Your task to perform on an android device: What's on my calendar tomorrow? Image 0: 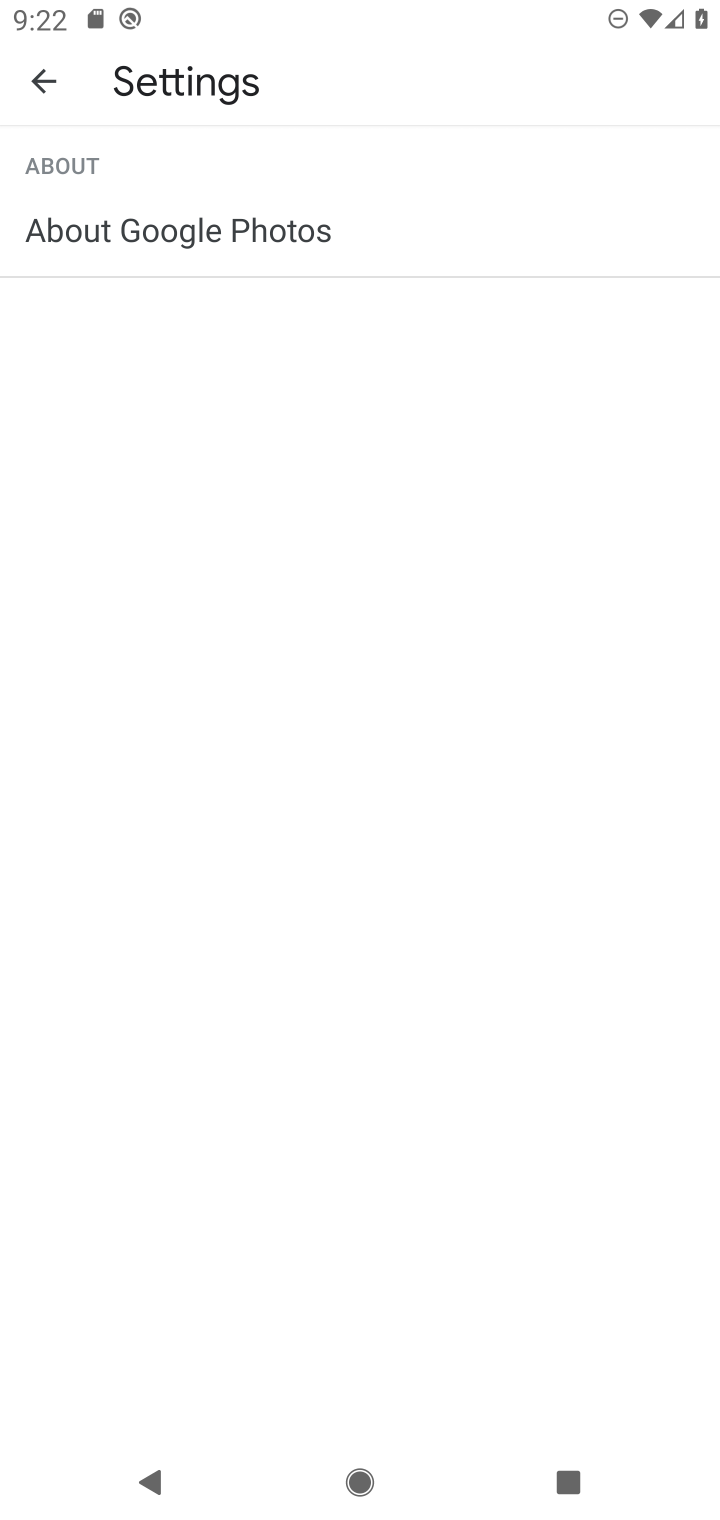
Step 0: press home button
Your task to perform on an android device: What's on my calendar tomorrow? Image 1: 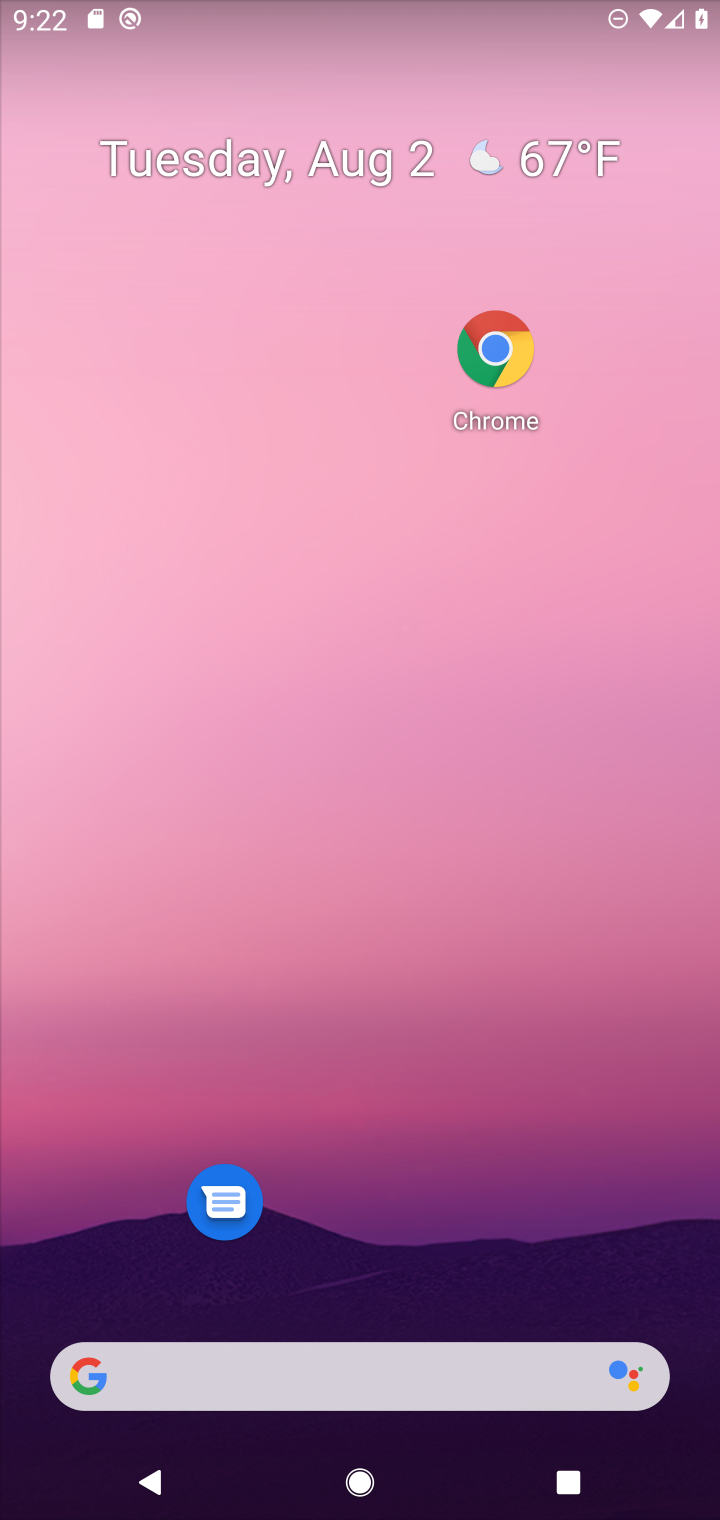
Step 1: drag from (402, 1295) to (426, 69)
Your task to perform on an android device: What's on my calendar tomorrow? Image 2: 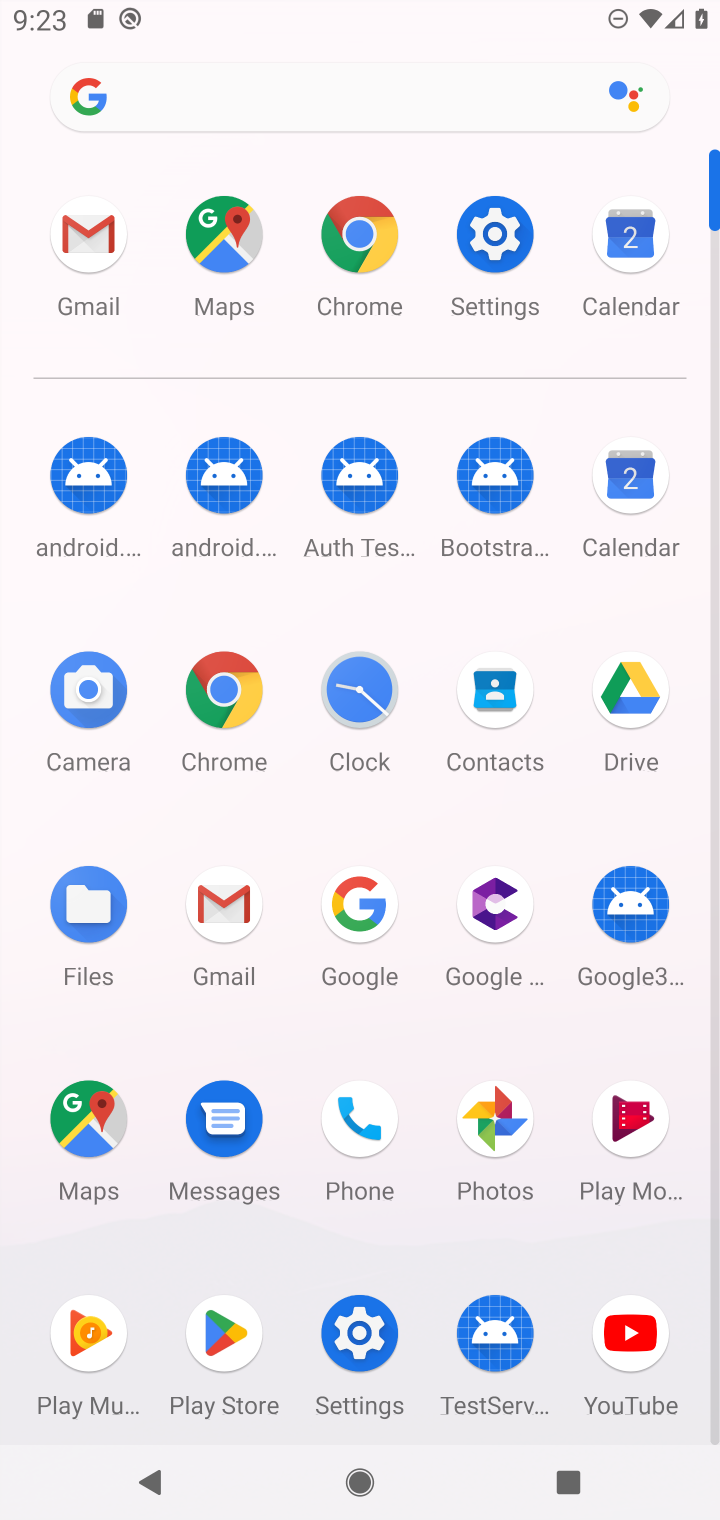
Step 2: click (630, 254)
Your task to perform on an android device: What's on my calendar tomorrow? Image 3: 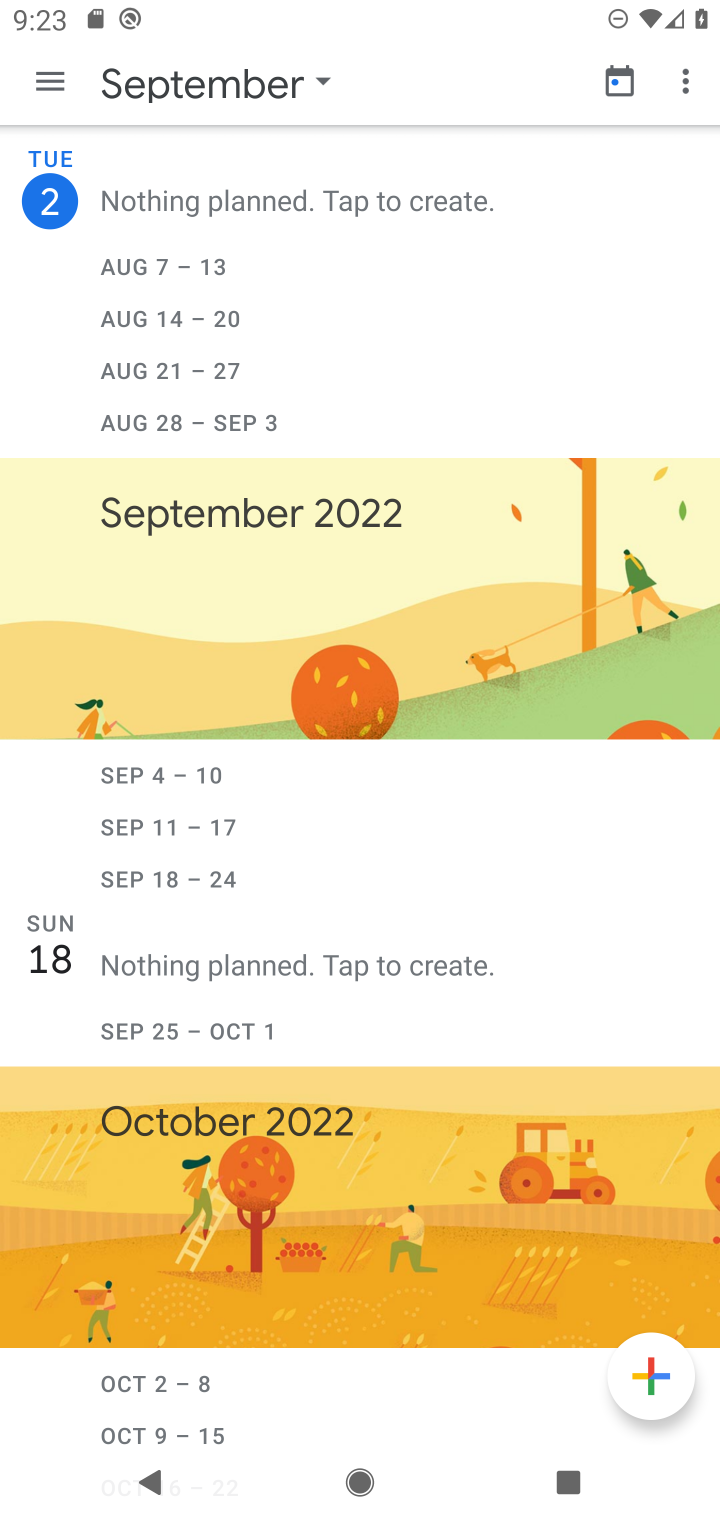
Step 3: click (619, 84)
Your task to perform on an android device: What's on my calendar tomorrow? Image 4: 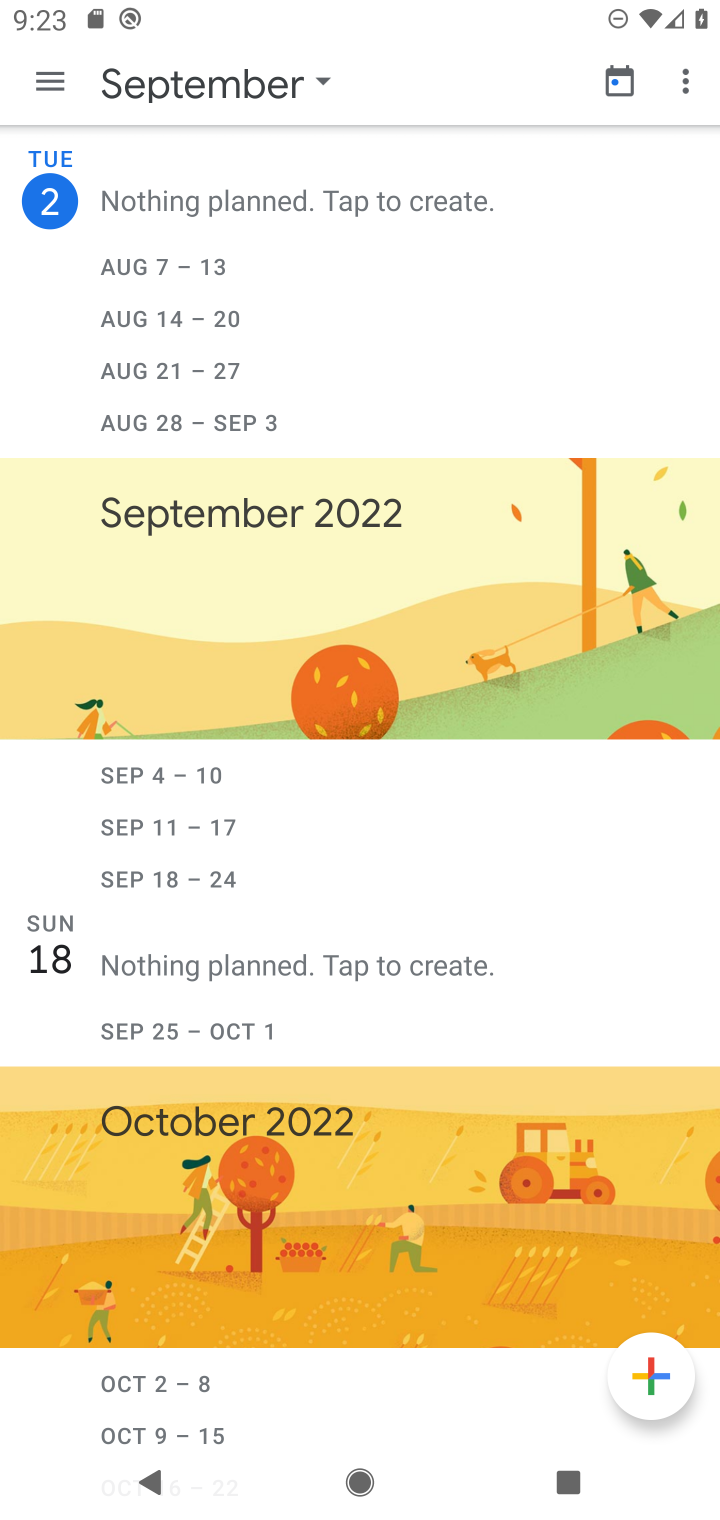
Step 4: click (619, 84)
Your task to perform on an android device: What's on my calendar tomorrow? Image 5: 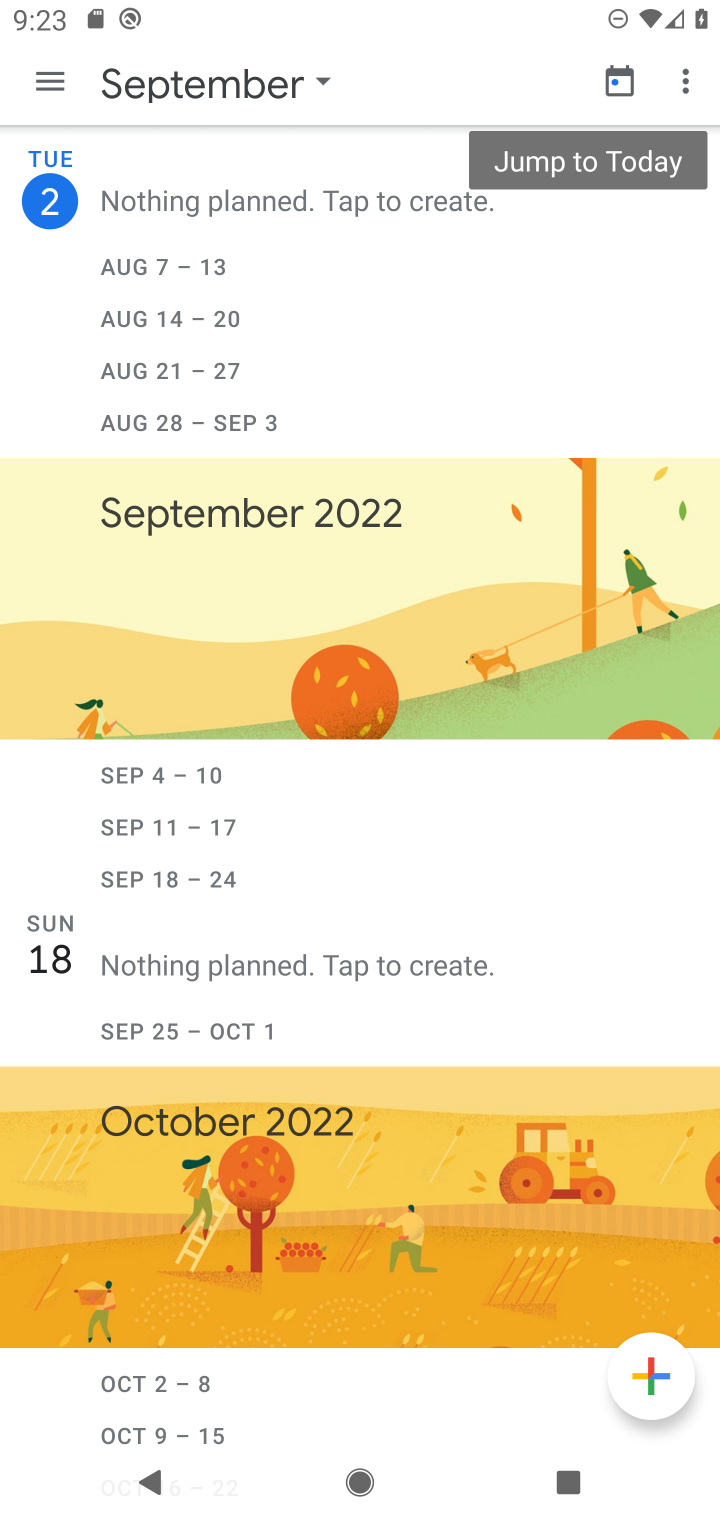
Step 5: click (619, 84)
Your task to perform on an android device: What's on my calendar tomorrow? Image 6: 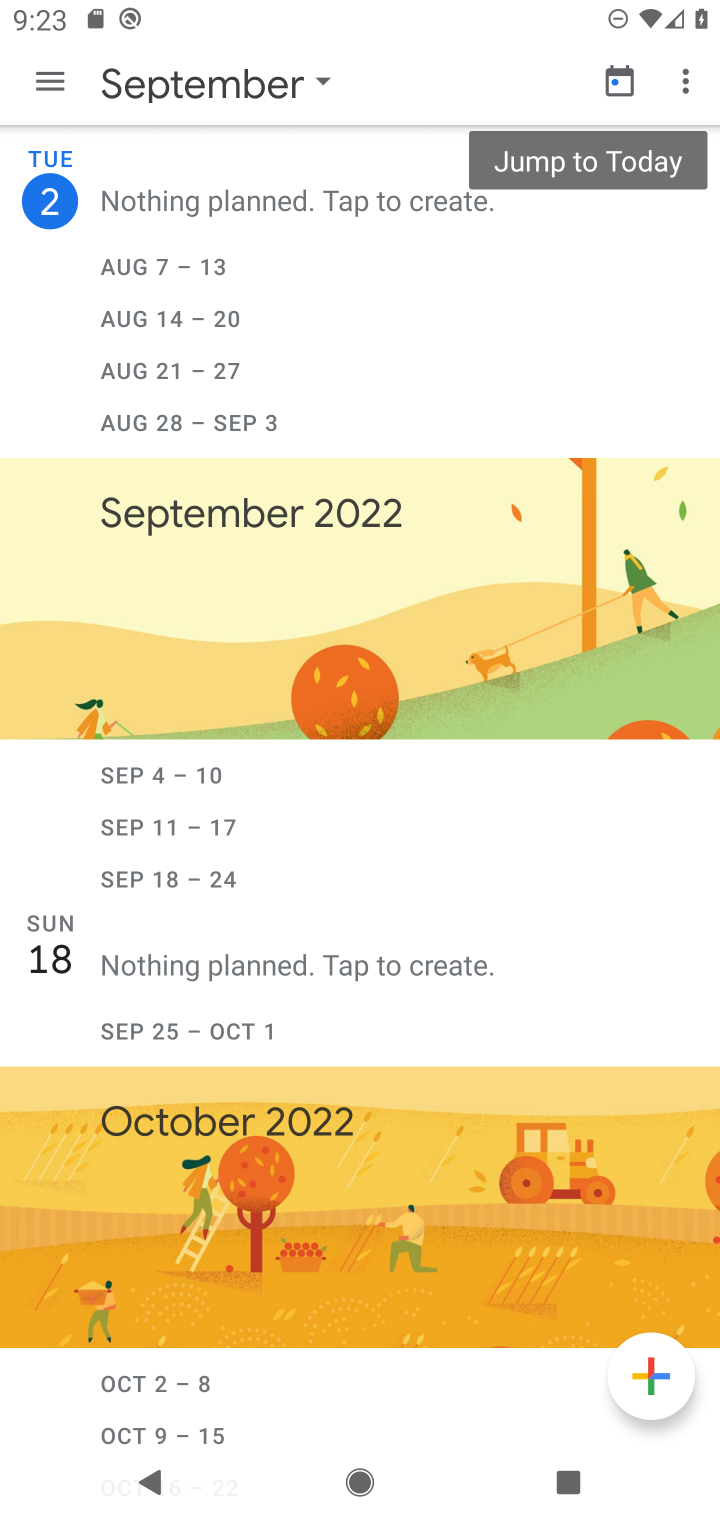
Step 6: click (619, 84)
Your task to perform on an android device: What's on my calendar tomorrow? Image 7: 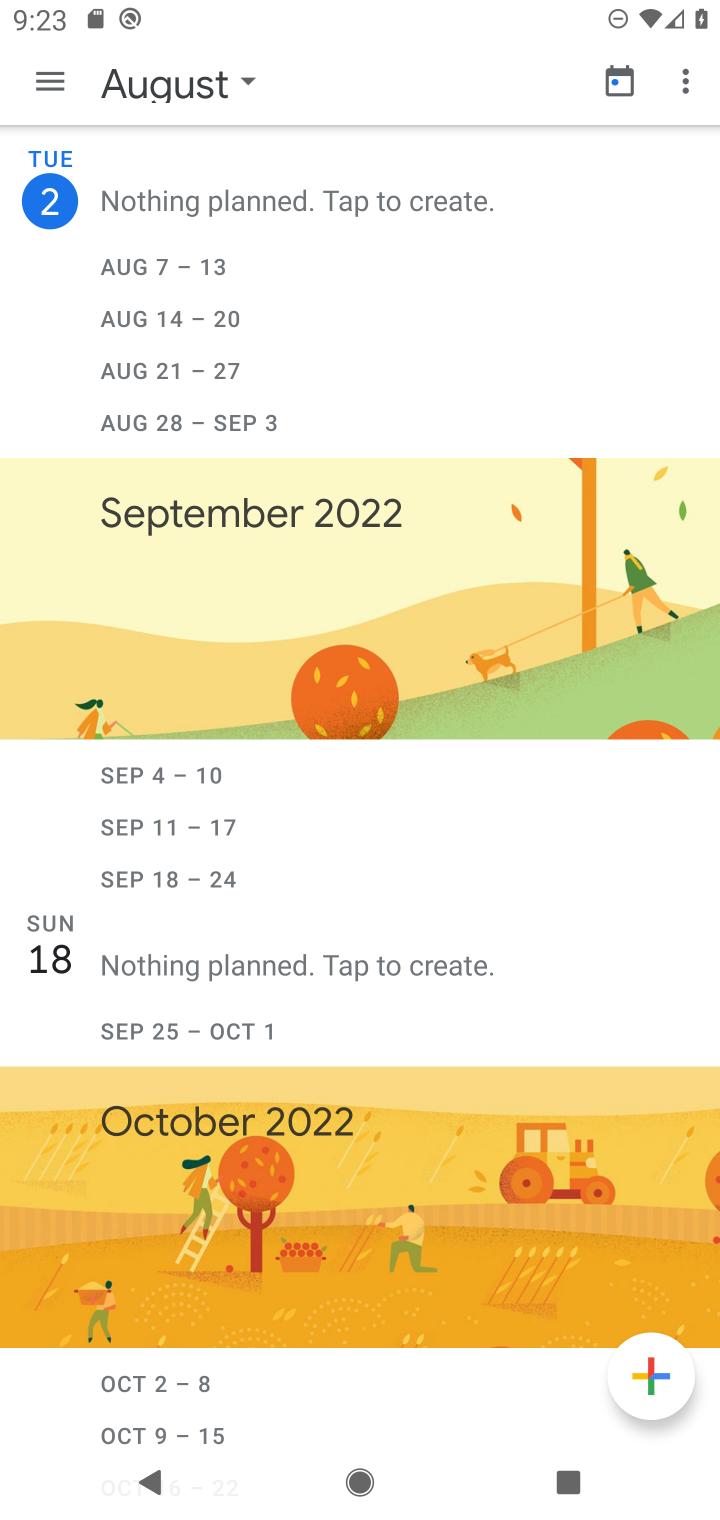
Step 7: click (243, 84)
Your task to perform on an android device: What's on my calendar tomorrow? Image 8: 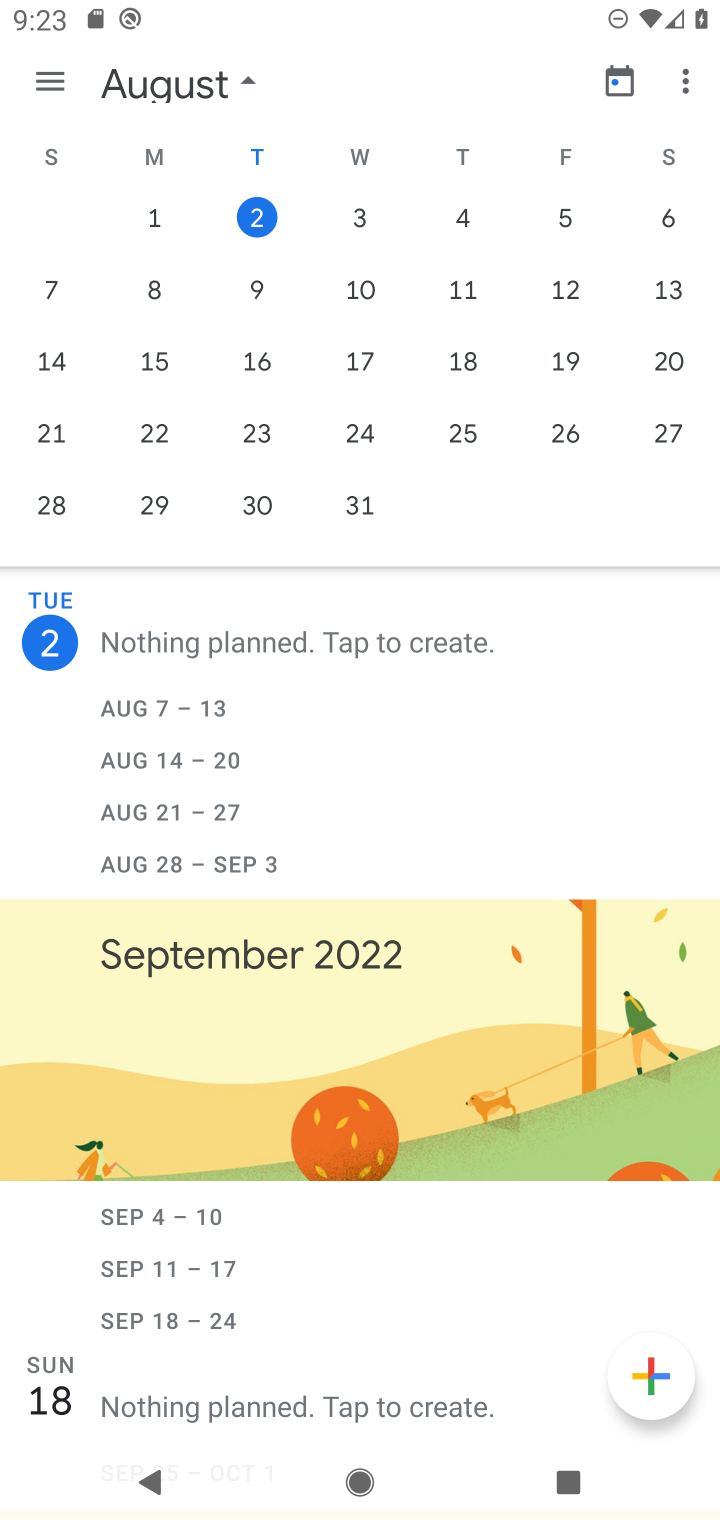
Step 8: click (361, 221)
Your task to perform on an android device: What's on my calendar tomorrow? Image 9: 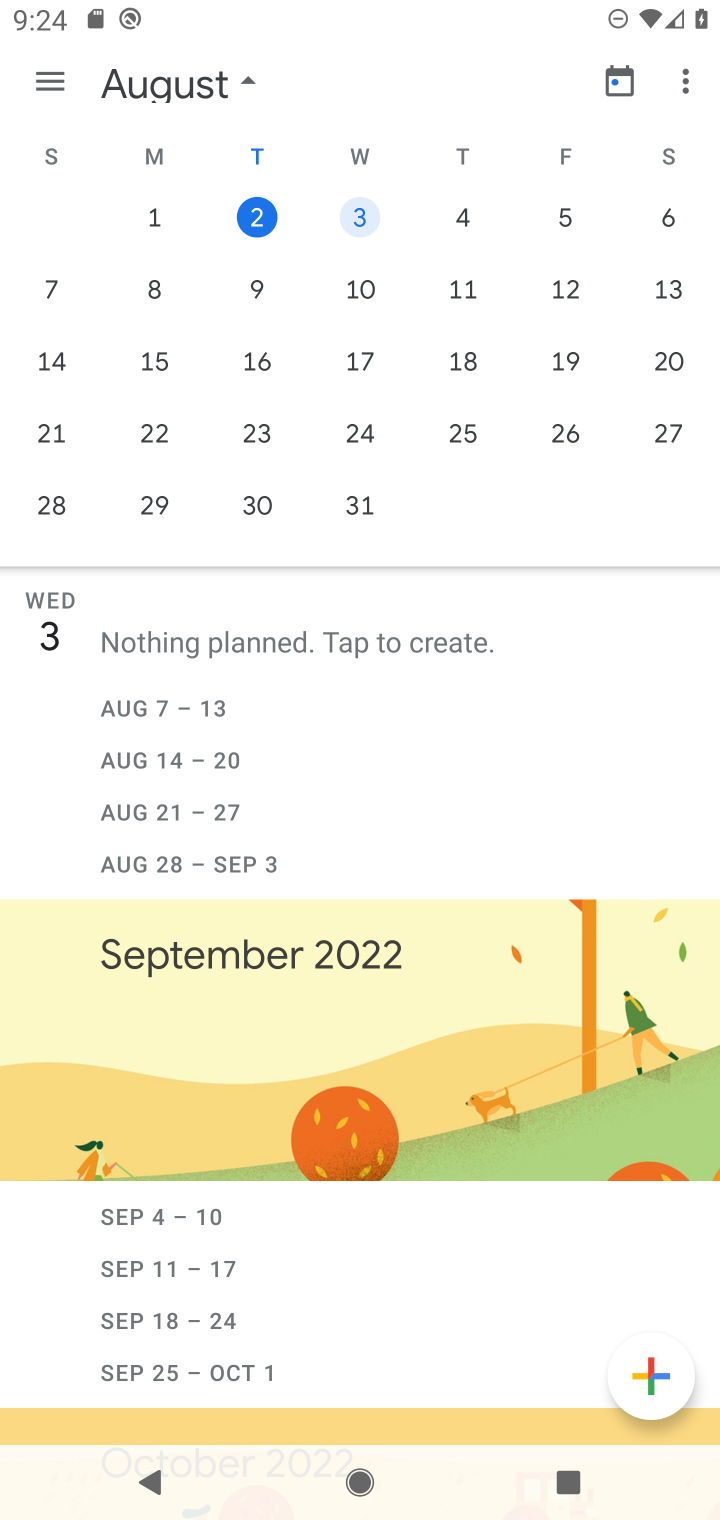
Step 9: click (360, 225)
Your task to perform on an android device: What's on my calendar tomorrow? Image 10: 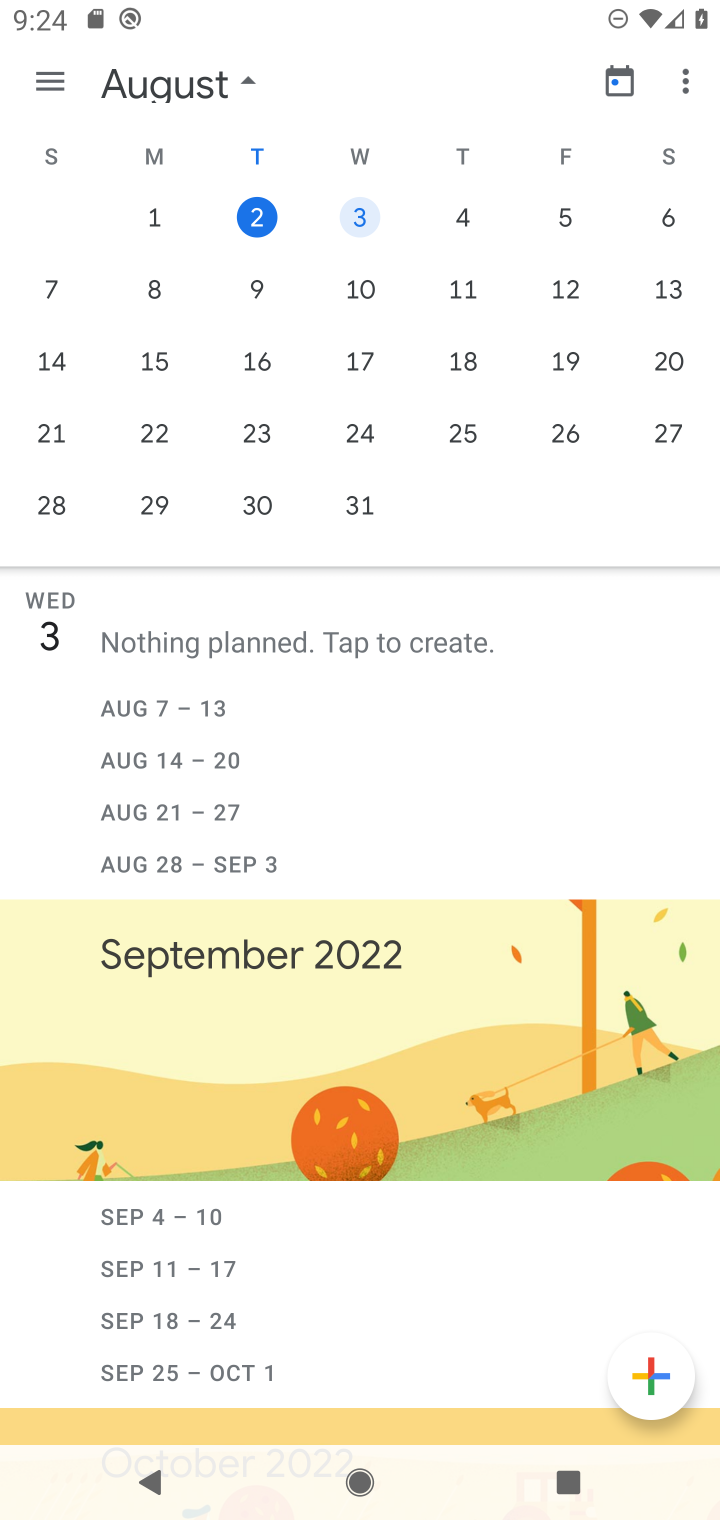
Step 10: click (362, 211)
Your task to perform on an android device: What's on my calendar tomorrow? Image 11: 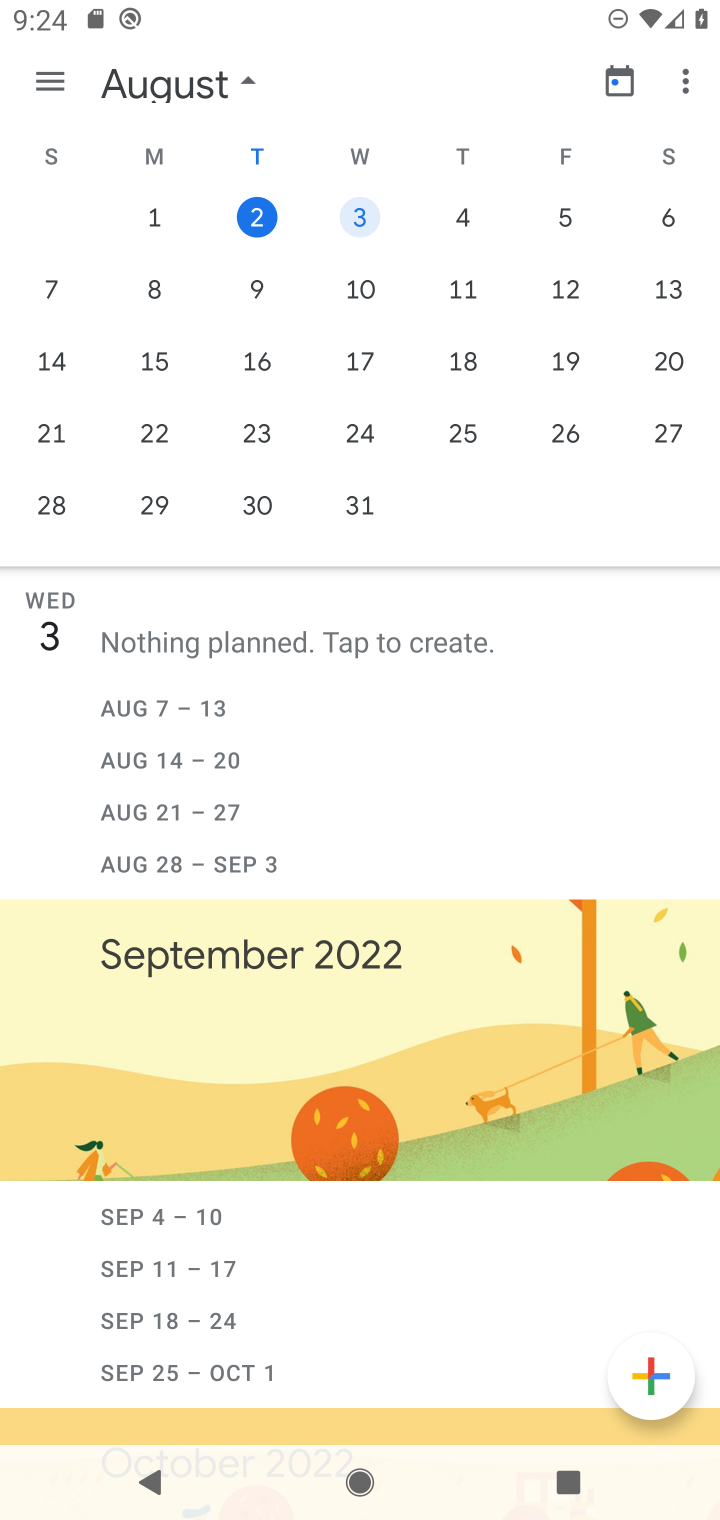
Step 11: click (365, 213)
Your task to perform on an android device: What's on my calendar tomorrow? Image 12: 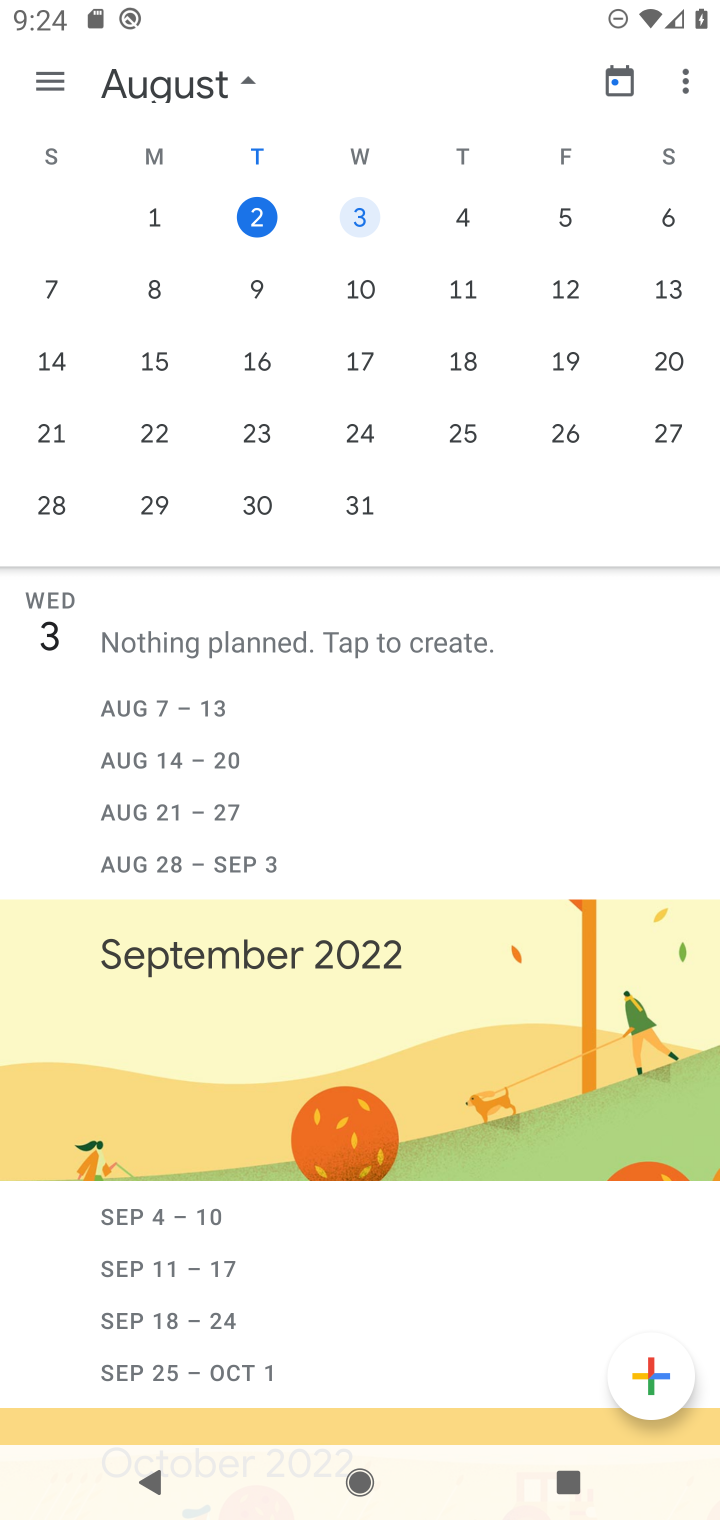
Step 12: click (50, 69)
Your task to perform on an android device: What's on my calendar tomorrow? Image 13: 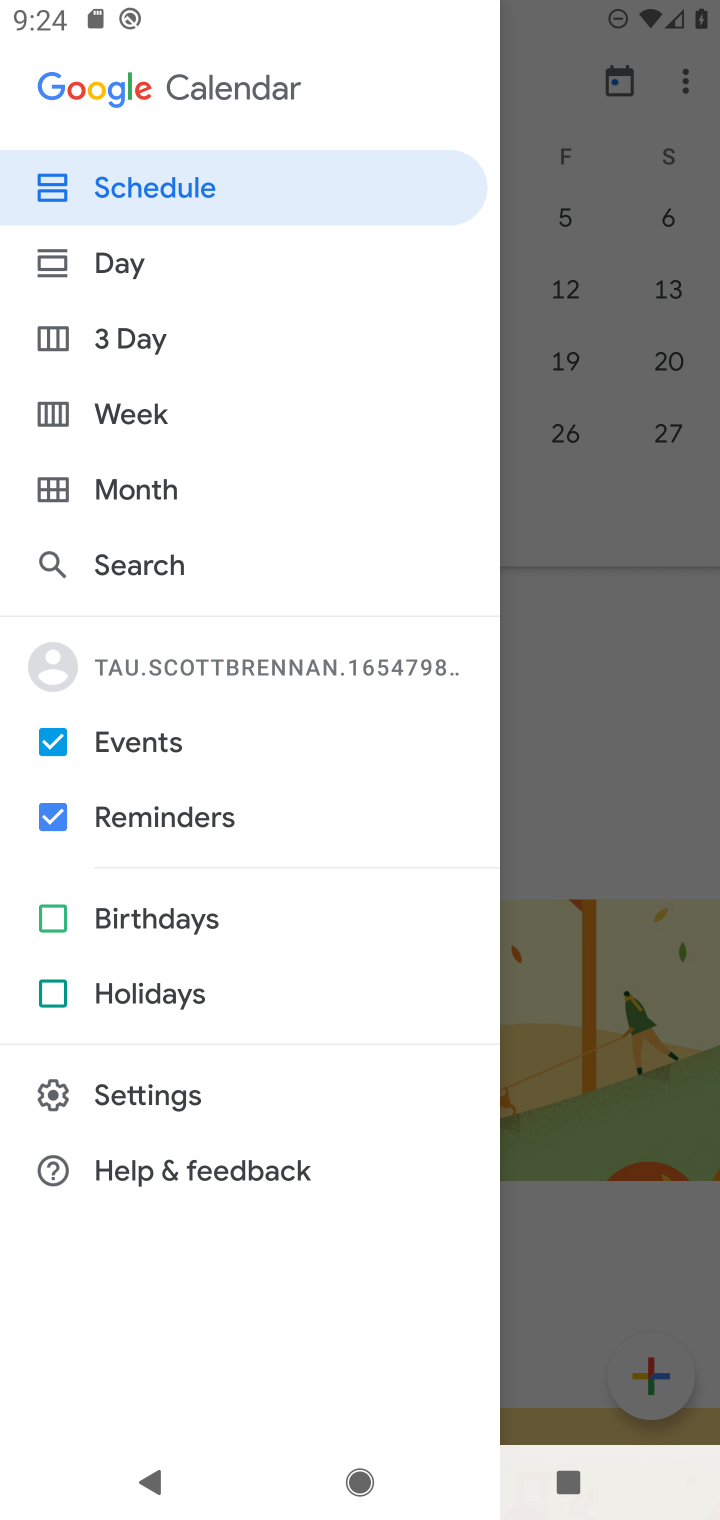
Step 13: click (83, 249)
Your task to perform on an android device: What's on my calendar tomorrow? Image 14: 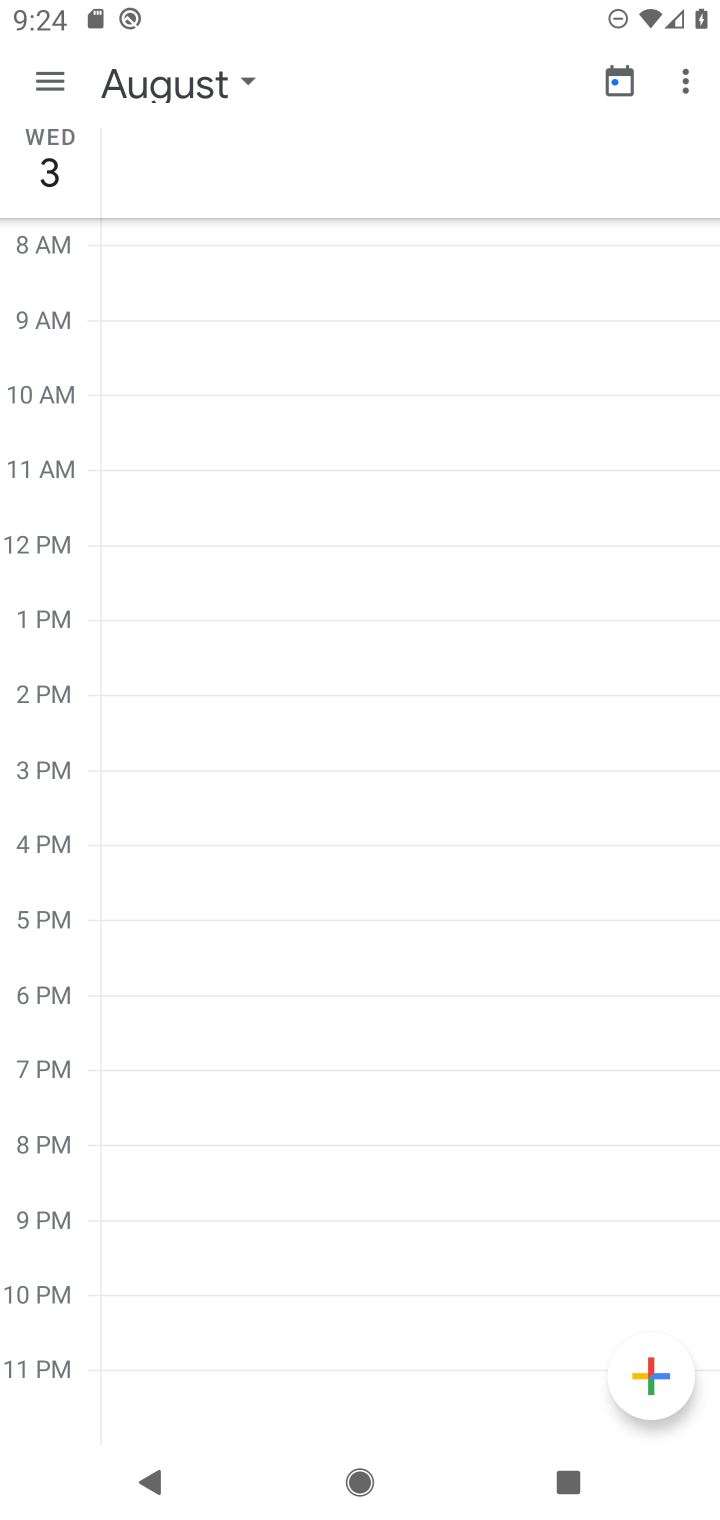
Step 14: task complete